Your task to perform on an android device: check out phone information Image 0: 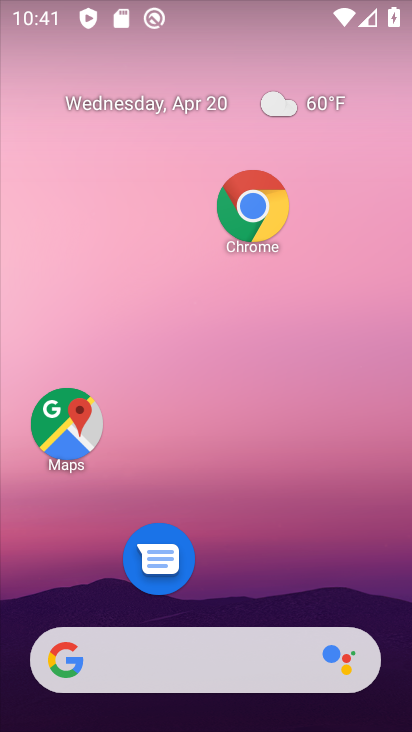
Step 0: drag from (330, 430) to (288, 13)
Your task to perform on an android device: check out phone information Image 1: 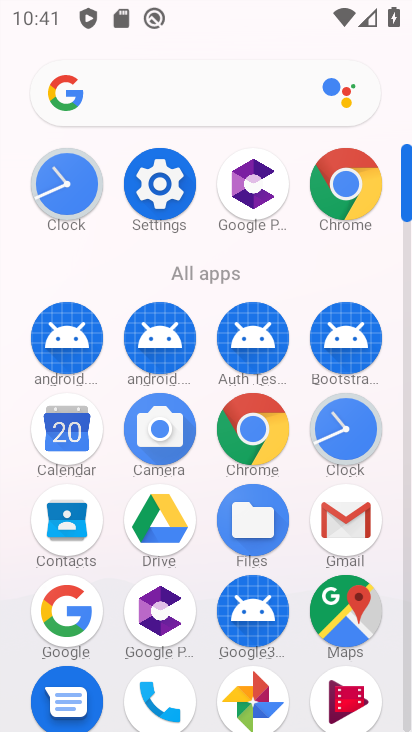
Step 1: drag from (201, 611) to (208, 166)
Your task to perform on an android device: check out phone information Image 2: 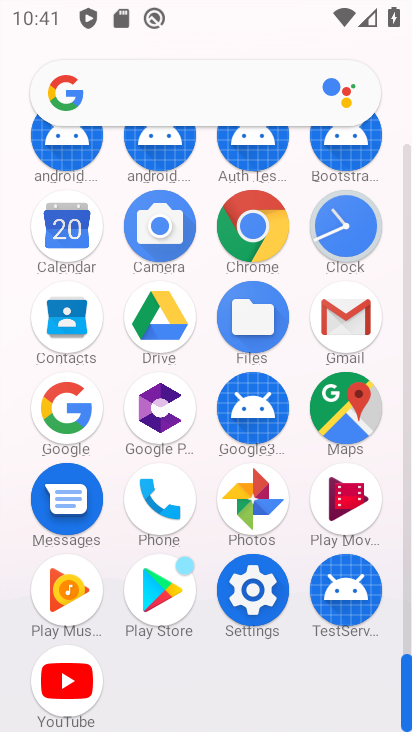
Step 2: click (240, 592)
Your task to perform on an android device: check out phone information Image 3: 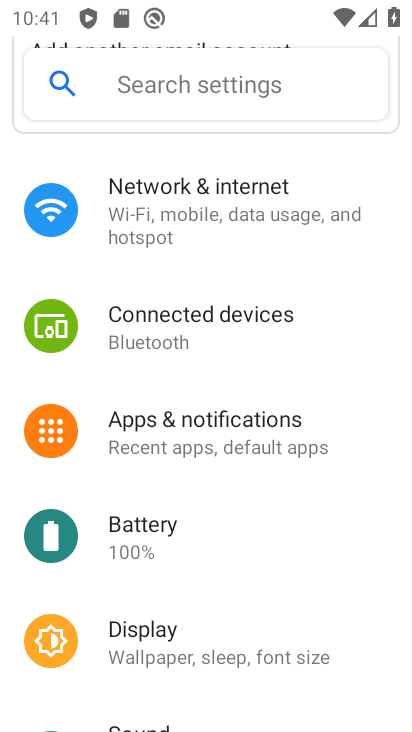
Step 3: drag from (223, 668) to (209, 151)
Your task to perform on an android device: check out phone information Image 4: 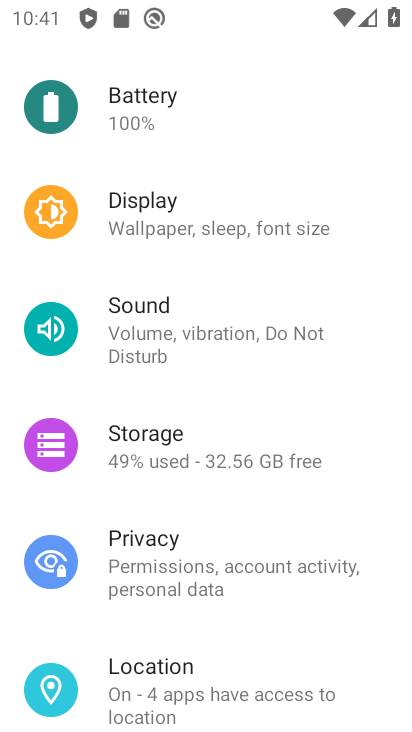
Step 4: drag from (247, 679) to (218, 93)
Your task to perform on an android device: check out phone information Image 5: 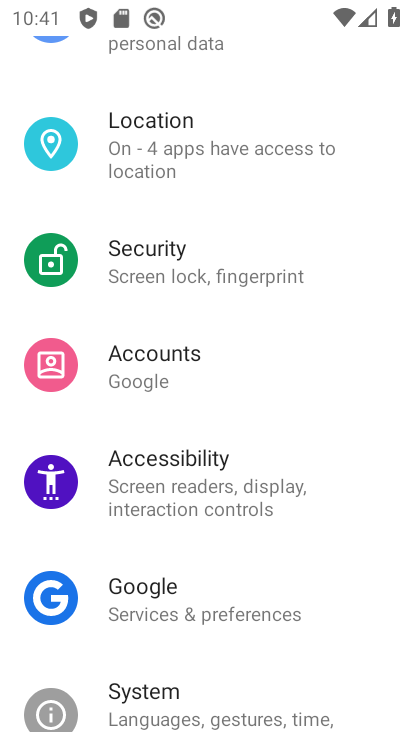
Step 5: drag from (258, 661) to (256, 258)
Your task to perform on an android device: check out phone information Image 6: 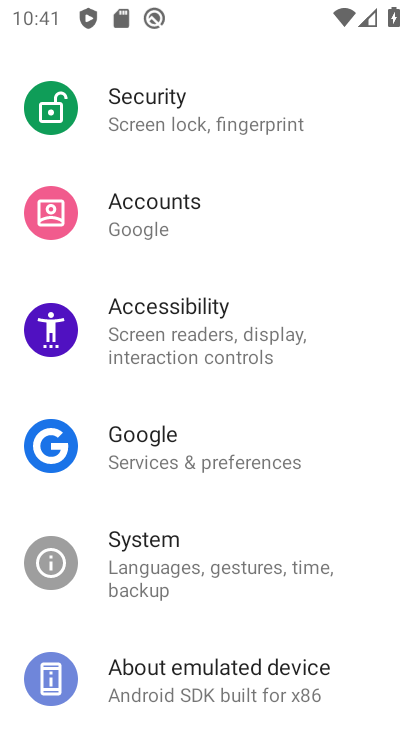
Step 6: click (254, 688)
Your task to perform on an android device: check out phone information Image 7: 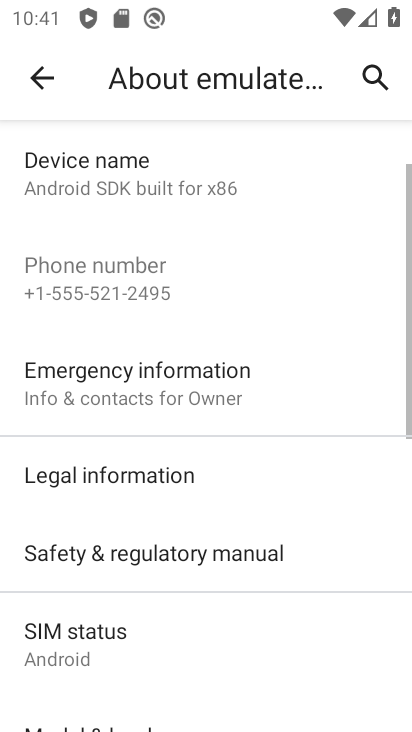
Step 7: task complete